Your task to perform on an android device: Open calendar and show me the third week of next month Image 0: 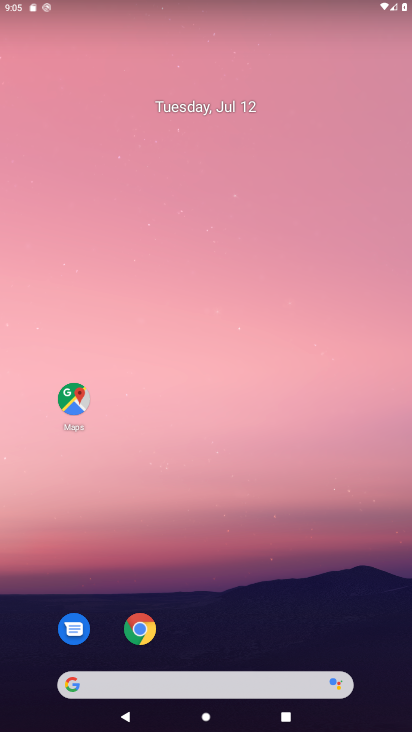
Step 0: drag from (298, 618) to (192, 34)
Your task to perform on an android device: Open calendar and show me the third week of next month Image 1: 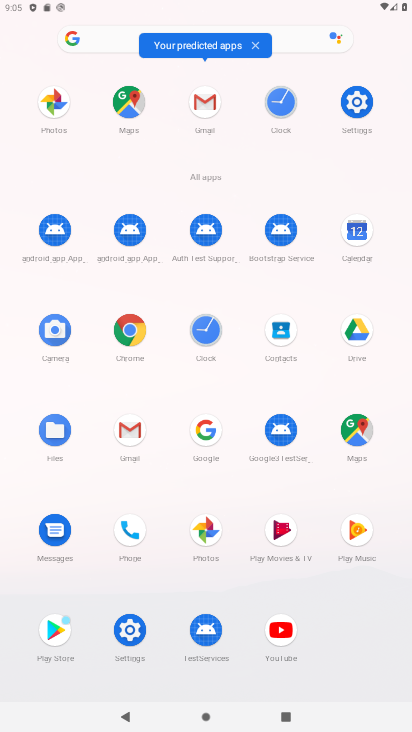
Step 1: click (360, 231)
Your task to perform on an android device: Open calendar and show me the third week of next month Image 2: 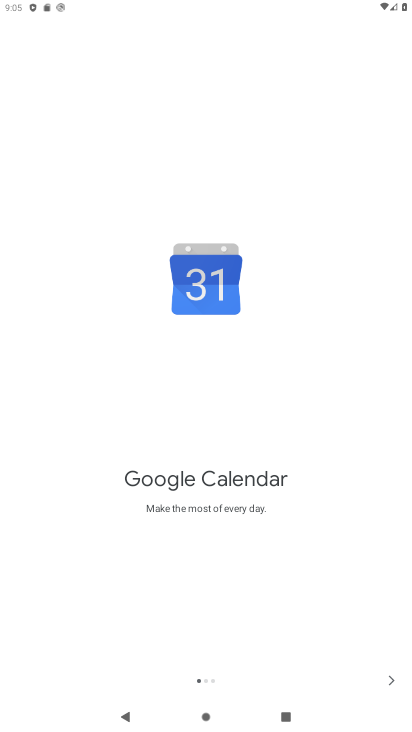
Step 2: click (392, 681)
Your task to perform on an android device: Open calendar and show me the third week of next month Image 3: 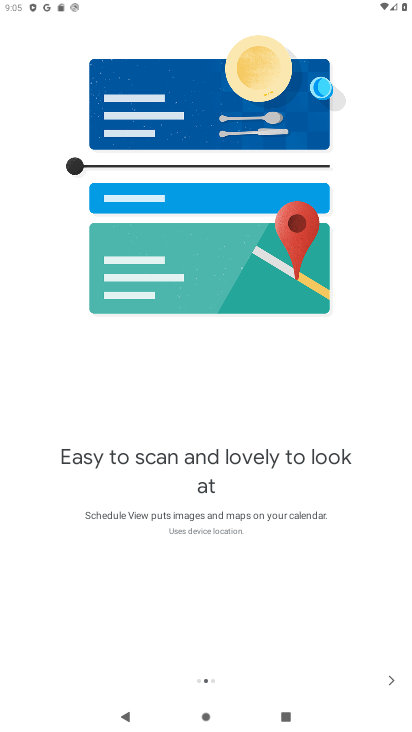
Step 3: click (390, 680)
Your task to perform on an android device: Open calendar and show me the third week of next month Image 4: 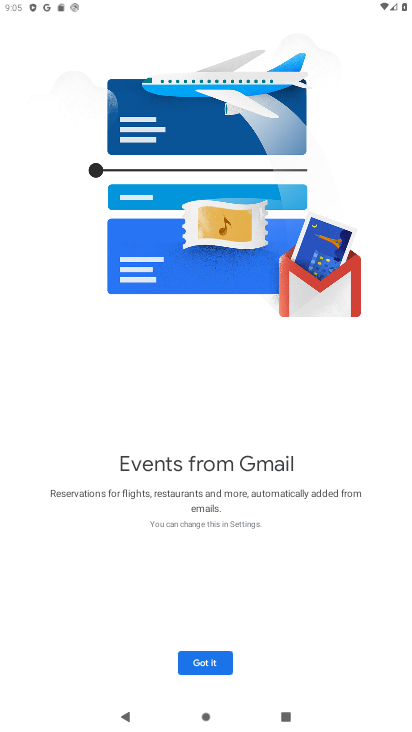
Step 4: click (205, 666)
Your task to perform on an android device: Open calendar and show me the third week of next month Image 5: 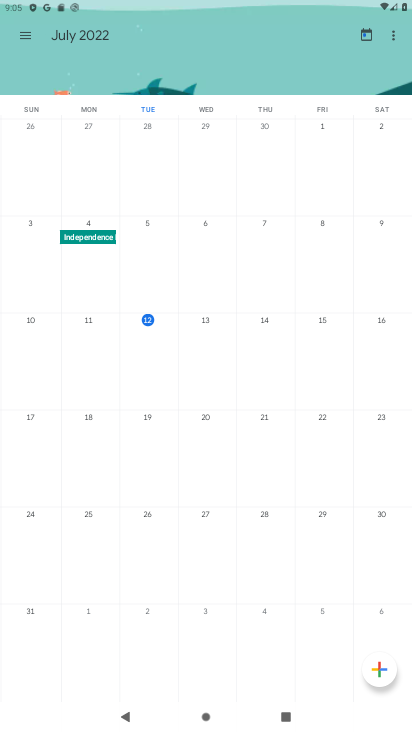
Step 5: click (25, 39)
Your task to perform on an android device: Open calendar and show me the third week of next month Image 6: 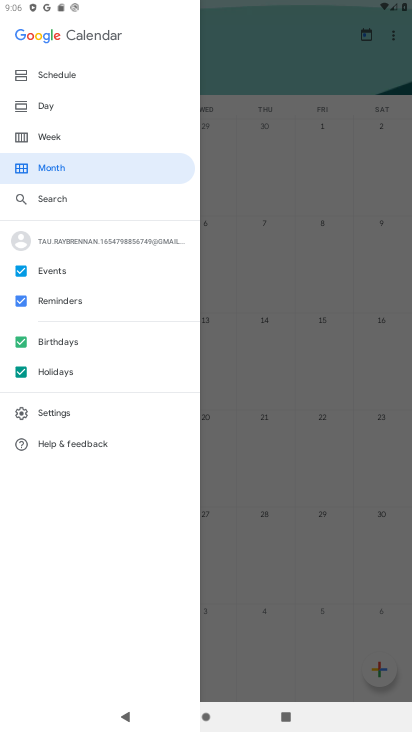
Step 6: click (48, 137)
Your task to perform on an android device: Open calendar and show me the third week of next month Image 7: 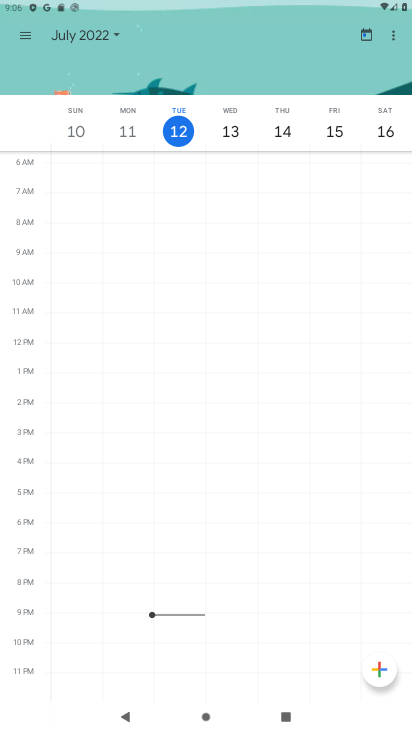
Step 7: click (102, 30)
Your task to perform on an android device: Open calendar and show me the third week of next month Image 8: 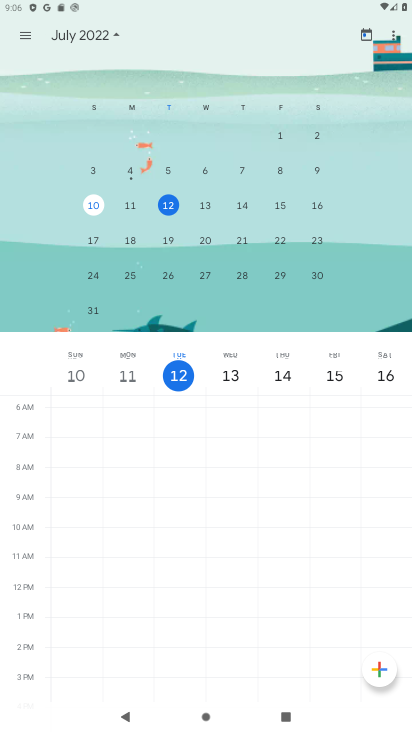
Step 8: drag from (364, 206) to (3, 189)
Your task to perform on an android device: Open calendar and show me the third week of next month Image 9: 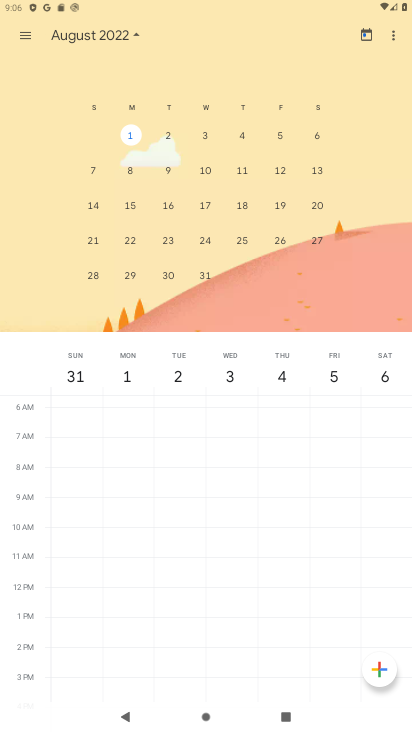
Step 9: click (205, 203)
Your task to perform on an android device: Open calendar and show me the third week of next month Image 10: 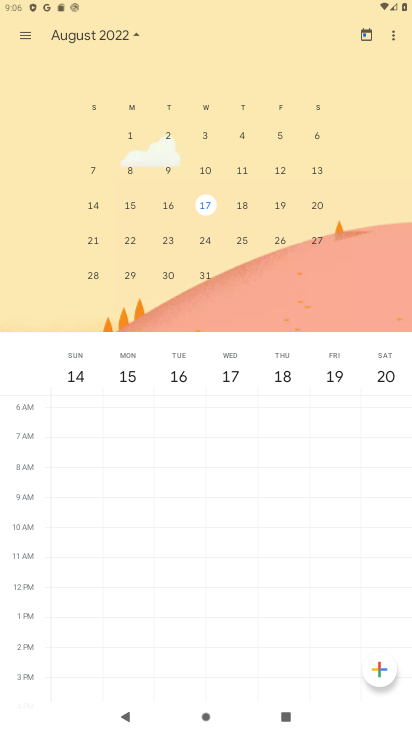
Step 10: task complete